Your task to perform on an android device: Is it going to rain today? Image 0: 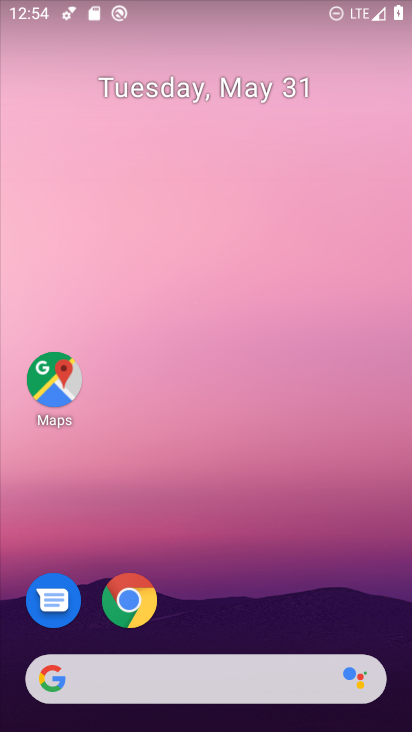
Step 0: drag from (211, 716) to (213, 22)
Your task to perform on an android device: Is it going to rain today? Image 1: 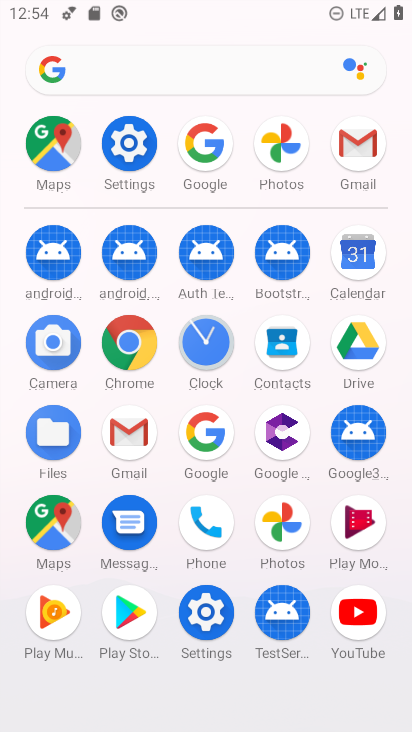
Step 1: click (214, 426)
Your task to perform on an android device: Is it going to rain today? Image 2: 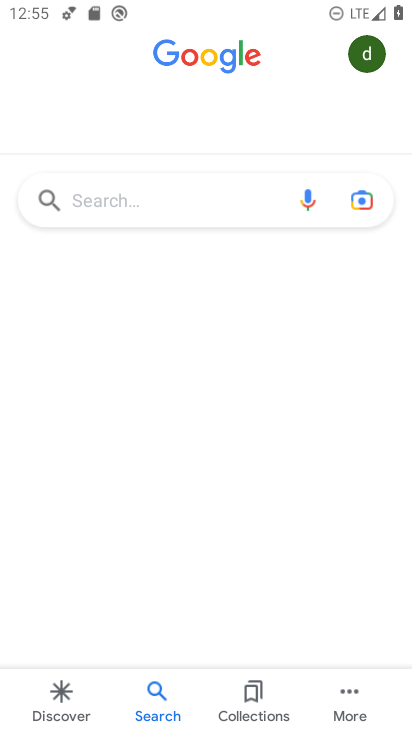
Step 2: click (144, 205)
Your task to perform on an android device: Is it going to rain today? Image 3: 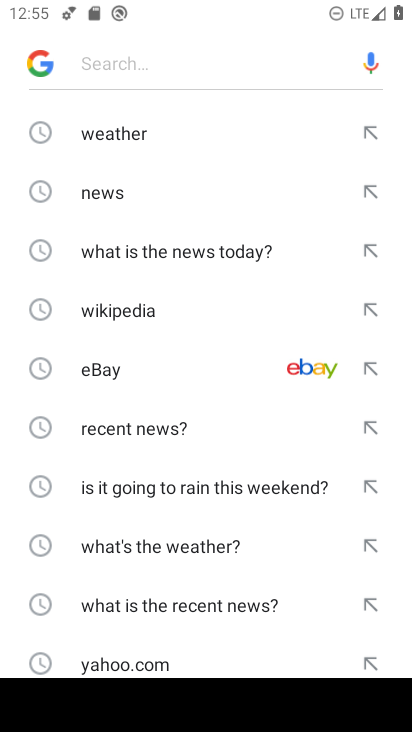
Step 3: click (116, 134)
Your task to perform on an android device: Is it going to rain today? Image 4: 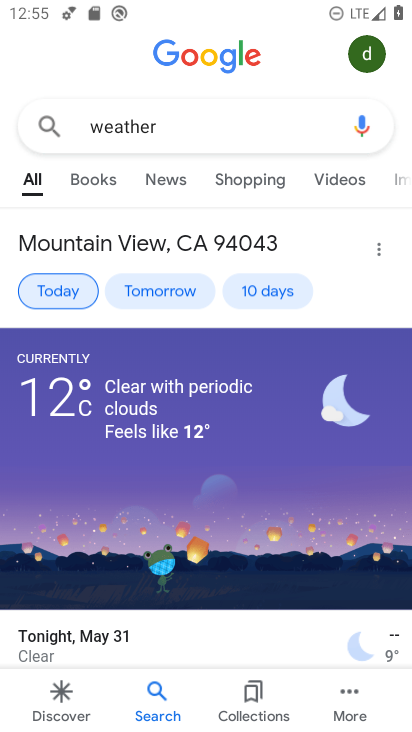
Step 4: click (46, 291)
Your task to perform on an android device: Is it going to rain today? Image 5: 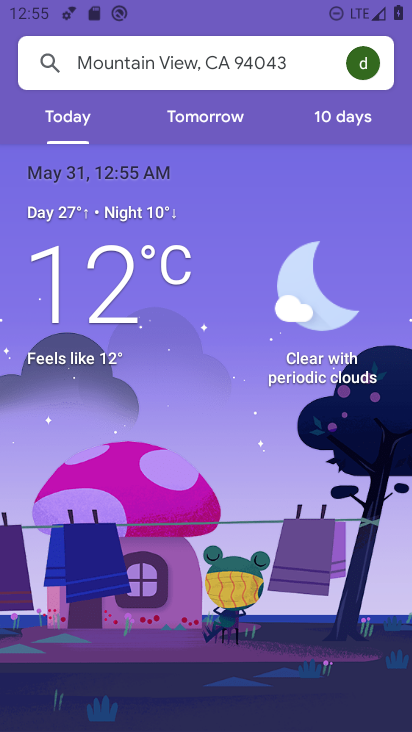
Step 5: task complete